Your task to perform on an android device: open wifi settings Image 0: 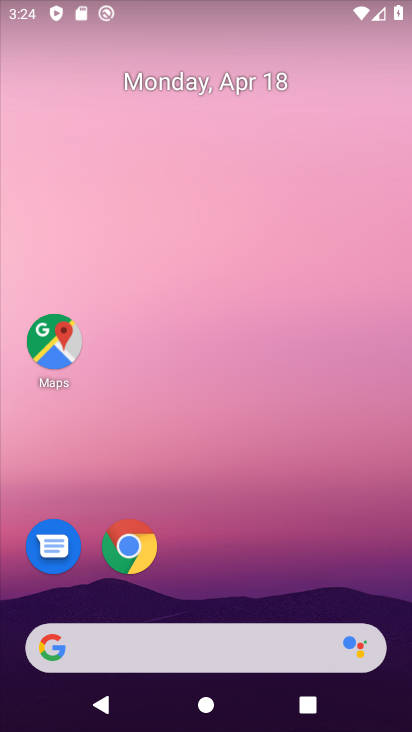
Step 0: drag from (249, 475) to (273, 52)
Your task to perform on an android device: open wifi settings Image 1: 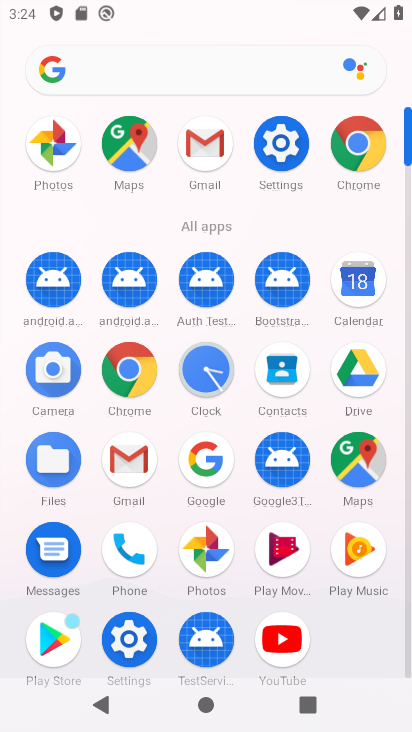
Step 1: click (274, 136)
Your task to perform on an android device: open wifi settings Image 2: 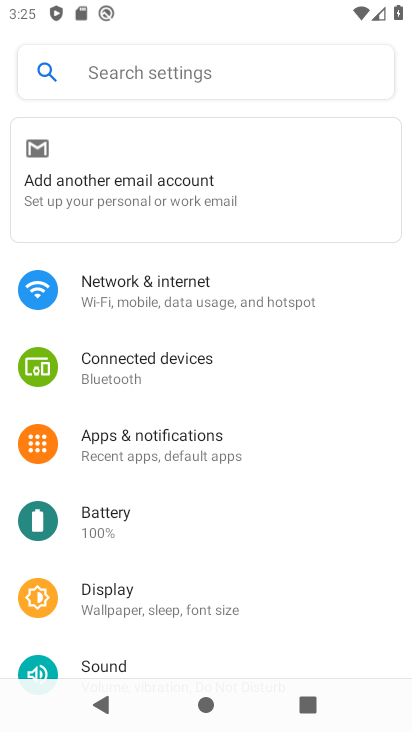
Step 2: click (133, 293)
Your task to perform on an android device: open wifi settings Image 3: 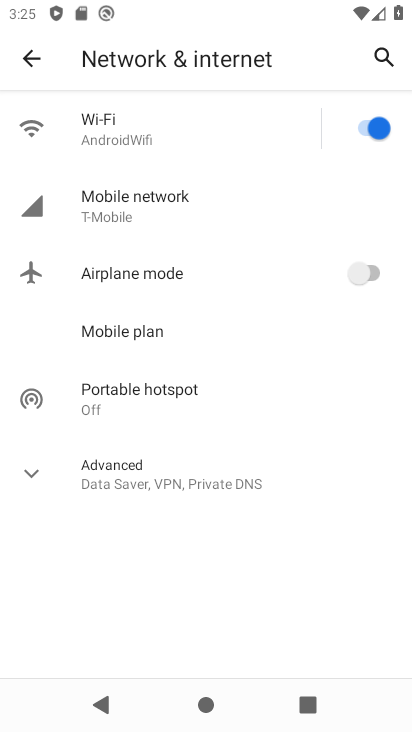
Step 3: click (186, 112)
Your task to perform on an android device: open wifi settings Image 4: 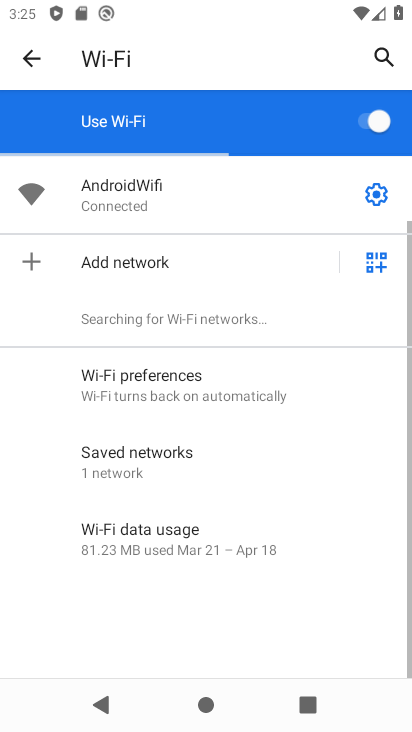
Step 4: click (377, 195)
Your task to perform on an android device: open wifi settings Image 5: 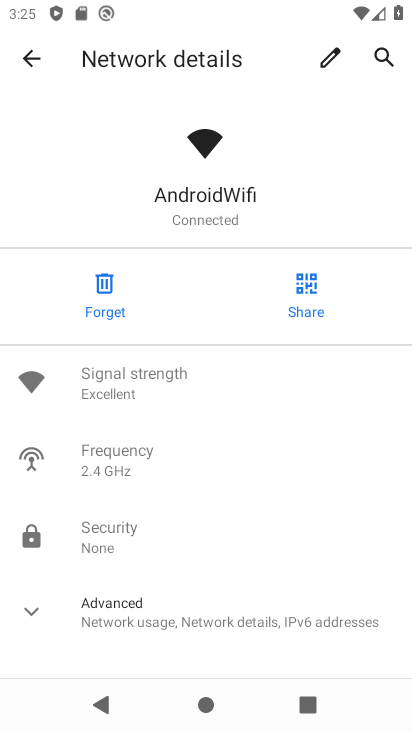
Step 5: task complete